Your task to perform on an android device: change the clock style Image 0: 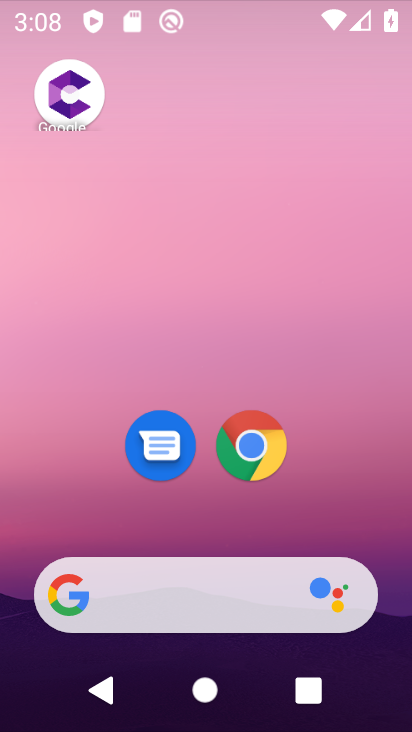
Step 0: drag from (324, 378) to (352, 12)
Your task to perform on an android device: change the clock style Image 1: 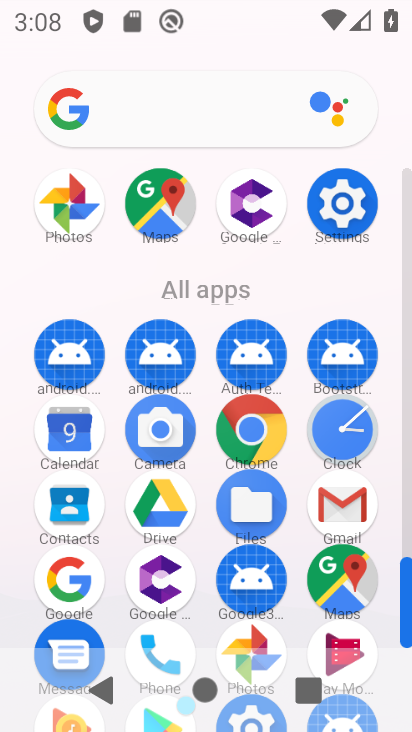
Step 1: press home button
Your task to perform on an android device: change the clock style Image 2: 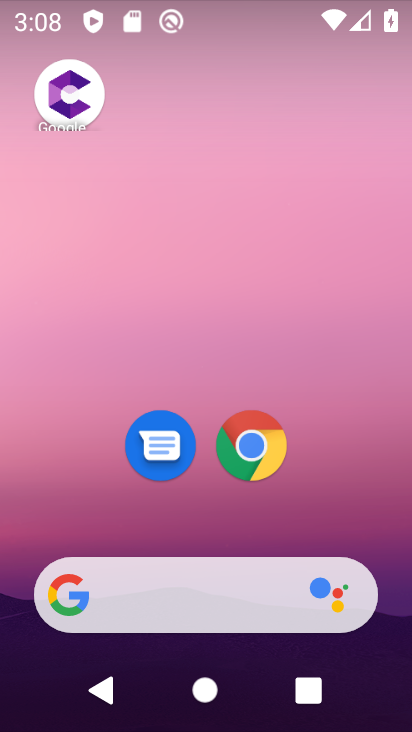
Step 2: drag from (342, 391) to (369, 0)
Your task to perform on an android device: change the clock style Image 3: 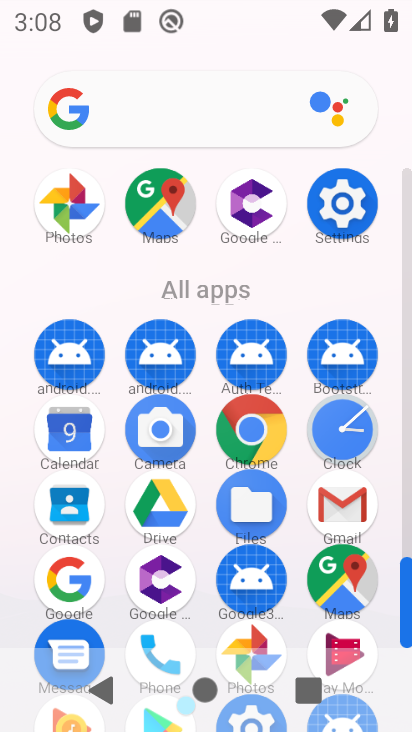
Step 3: click (338, 405)
Your task to perform on an android device: change the clock style Image 4: 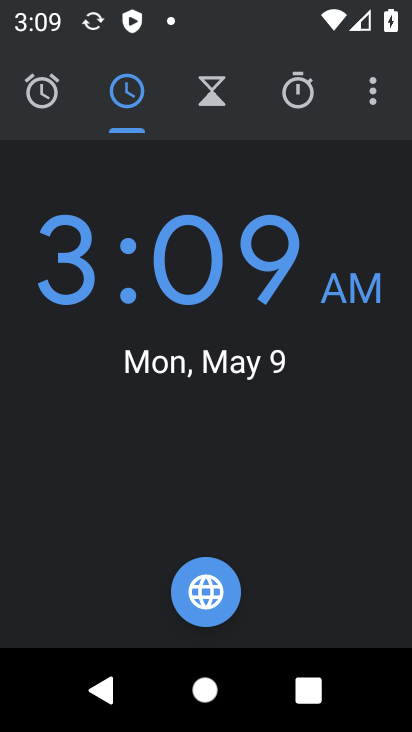
Step 4: click (380, 91)
Your task to perform on an android device: change the clock style Image 5: 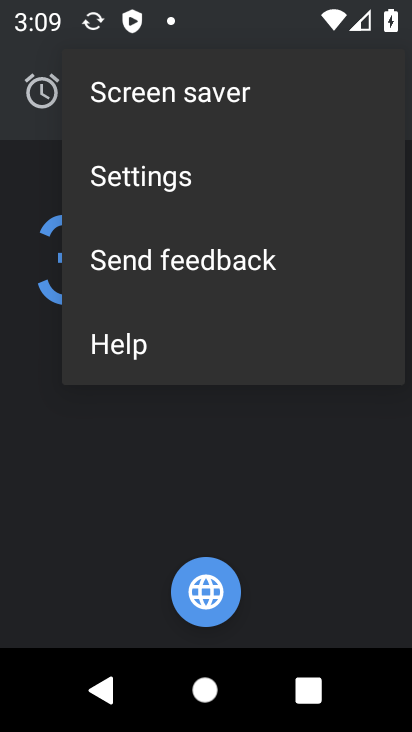
Step 5: click (223, 196)
Your task to perform on an android device: change the clock style Image 6: 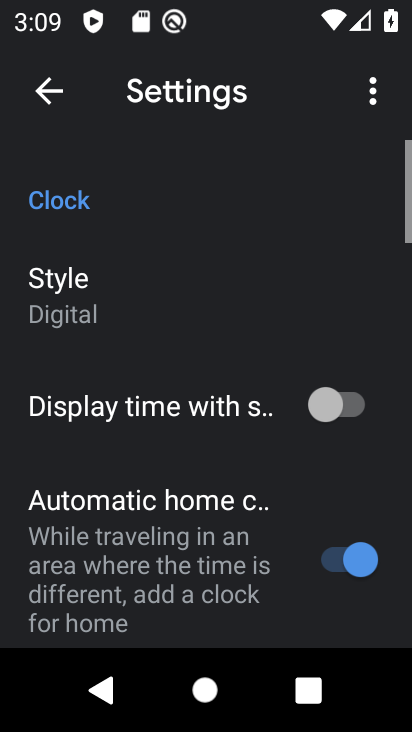
Step 6: click (61, 309)
Your task to perform on an android device: change the clock style Image 7: 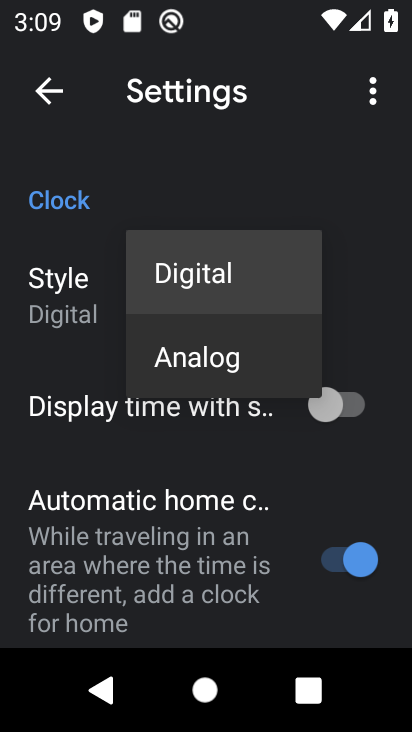
Step 7: click (182, 370)
Your task to perform on an android device: change the clock style Image 8: 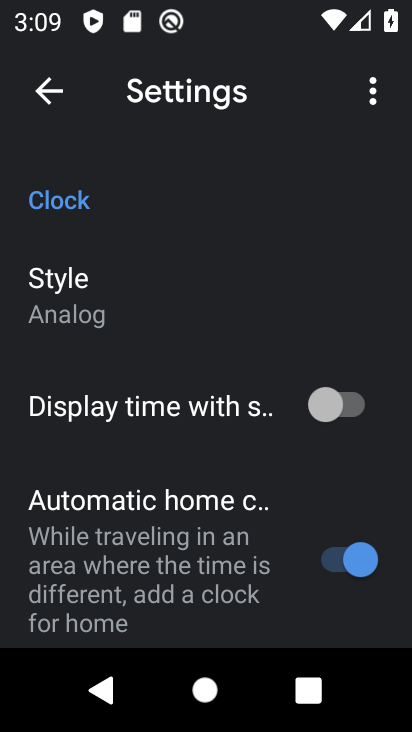
Step 8: task complete